Your task to perform on an android device: Show me popular games on the Play Store Image 0: 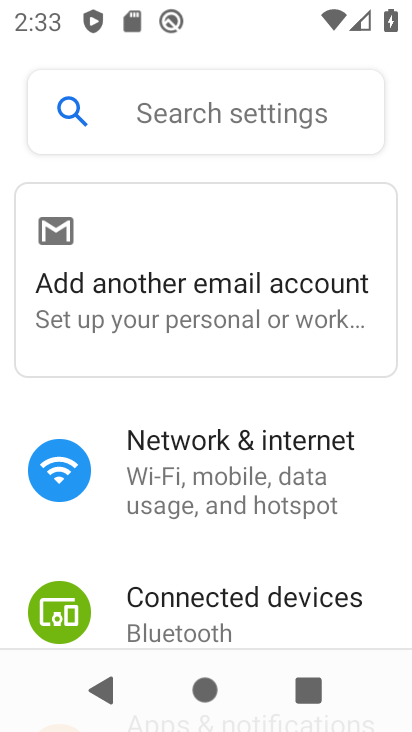
Step 0: press home button
Your task to perform on an android device: Show me popular games on the Play Store Image 1: 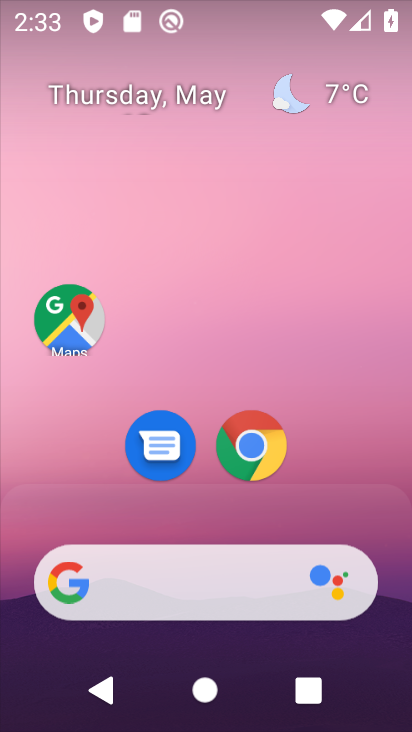
Step 1: drag from (364, 551) to (380, 0)
Your task to perform on an android device: Show me popular games on the Play Store Image 2: 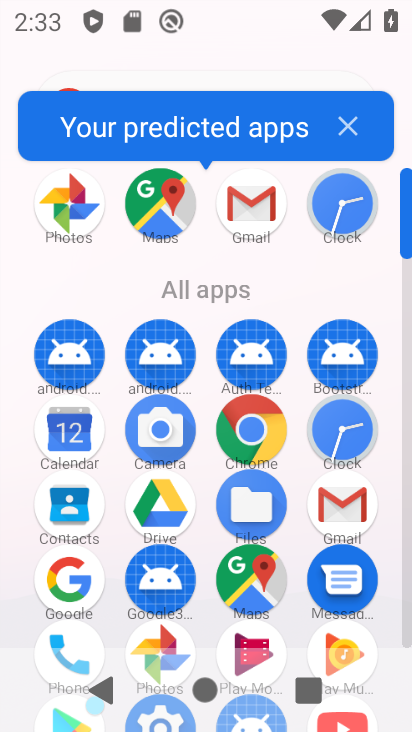
Step 2: drag from (406, 620) to (405, 553)
Your task to perform on an android device: Show me popular games on the Play Store Image 3: 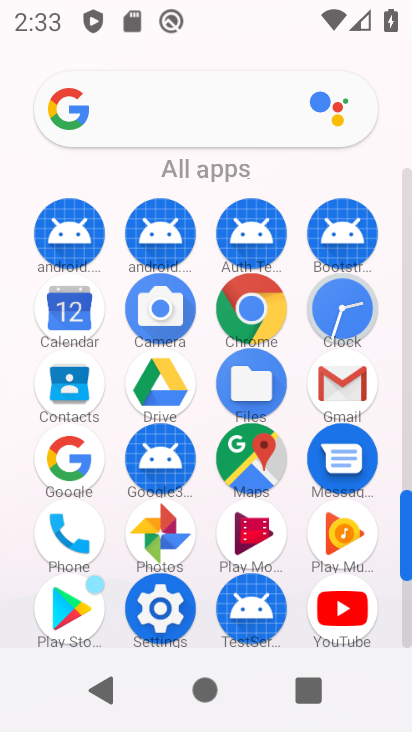
Step 3: click (73, 606)
Your task to perform on an android device: Show me popular games on the Play Store Image 4: 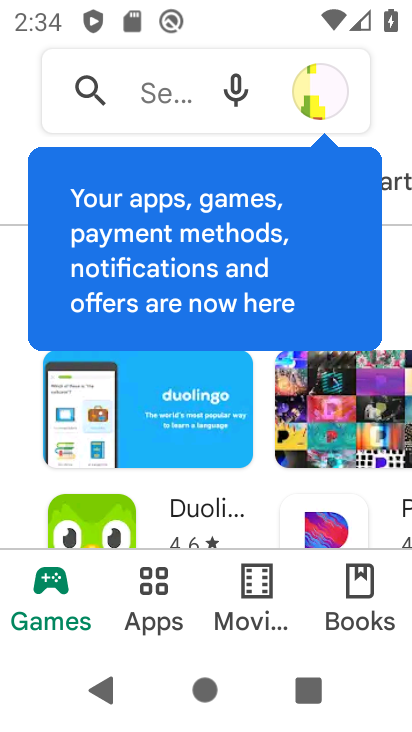
Step 4: drag from (168, 499) to (166, 262)
Your task to perform on an android device: Show me popular games on the Play Store Image 5: 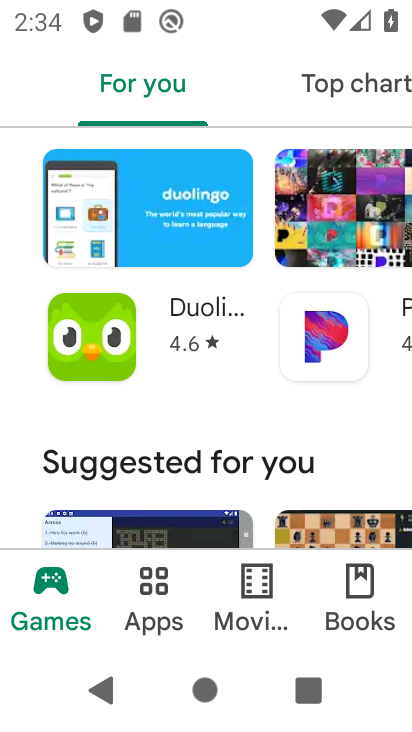
Step 5: drag from (208, 458) to (215, 188)
Your task to perform on an android device: Show me popular games on the Play Store Image 6: 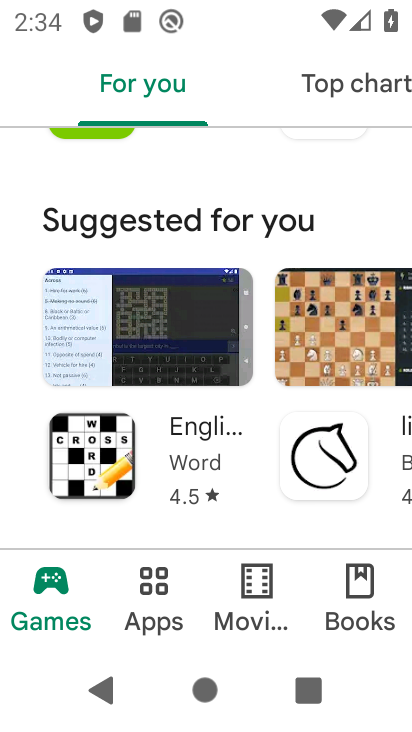
Step 6: drag from (209, 478) to (195, 167)
Your task to perform on an android device: Show me popular games on the Play Store Image 7: 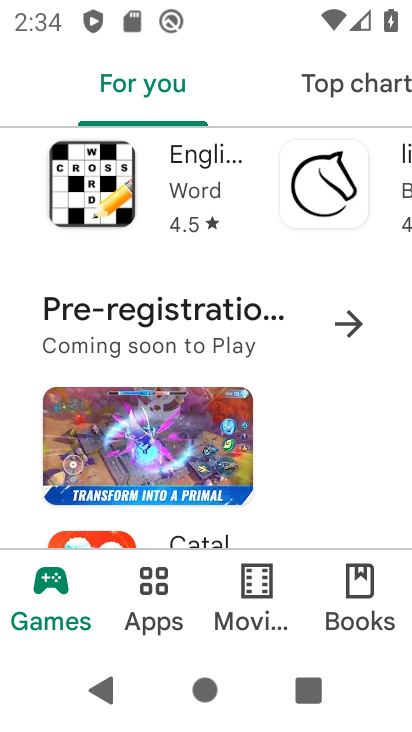
Step 7: drag from (214, 456) to (207, 196)
Your task to perform on an android device: Show me popular games on the Play Store Image 8: 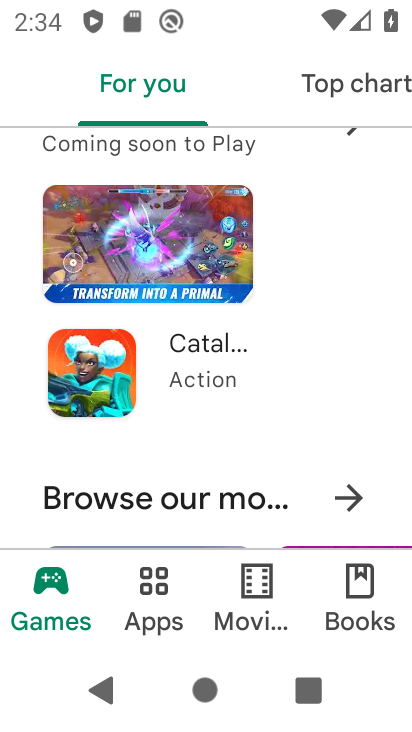
Step 8: drag from (196, 450) to (194, 184)
Your task to perform on an android device: Show me popular games on the Play Store Image 9: 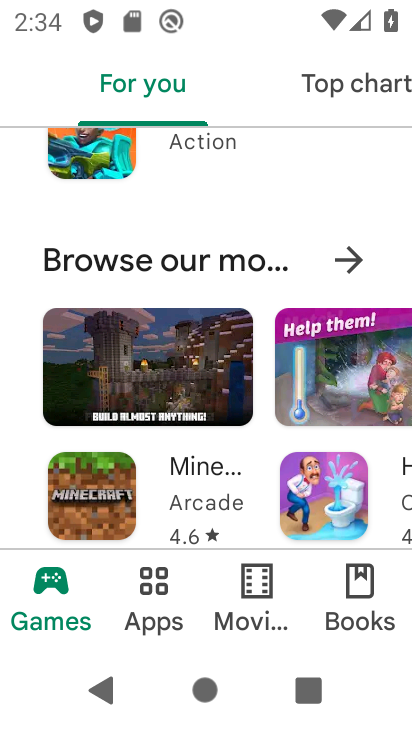
Step 9: click (220, 391)
Your task to perform on an android device: Show me popular games on the Play Store Image 10: 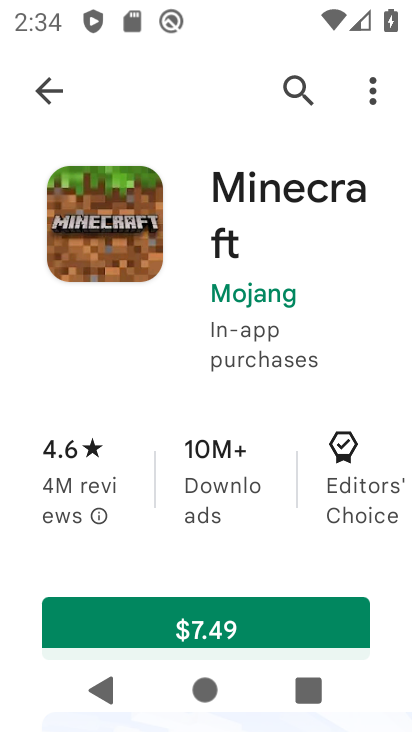
Step 10: click (50, 90)
Your task to perform on an android device: Show me popular games on the Play Store Image 11: 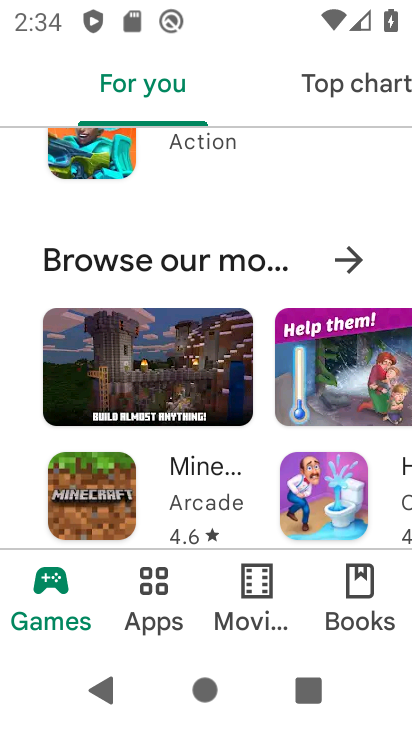
Step 11: click (312, 260)
Your task to perform on an android device: Show me popular games on the Play Store Image 12: 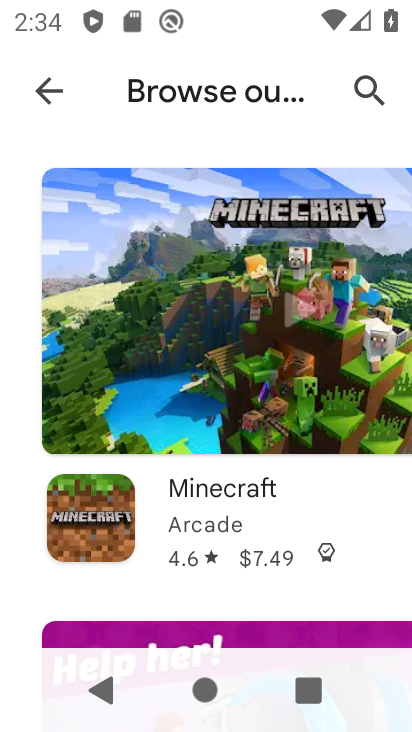
Step 12: task complete